Your task to perform on an android device: open app "Pluto TV - Live TV and Movies" (install if not already installed) and go to login screen Image 0: 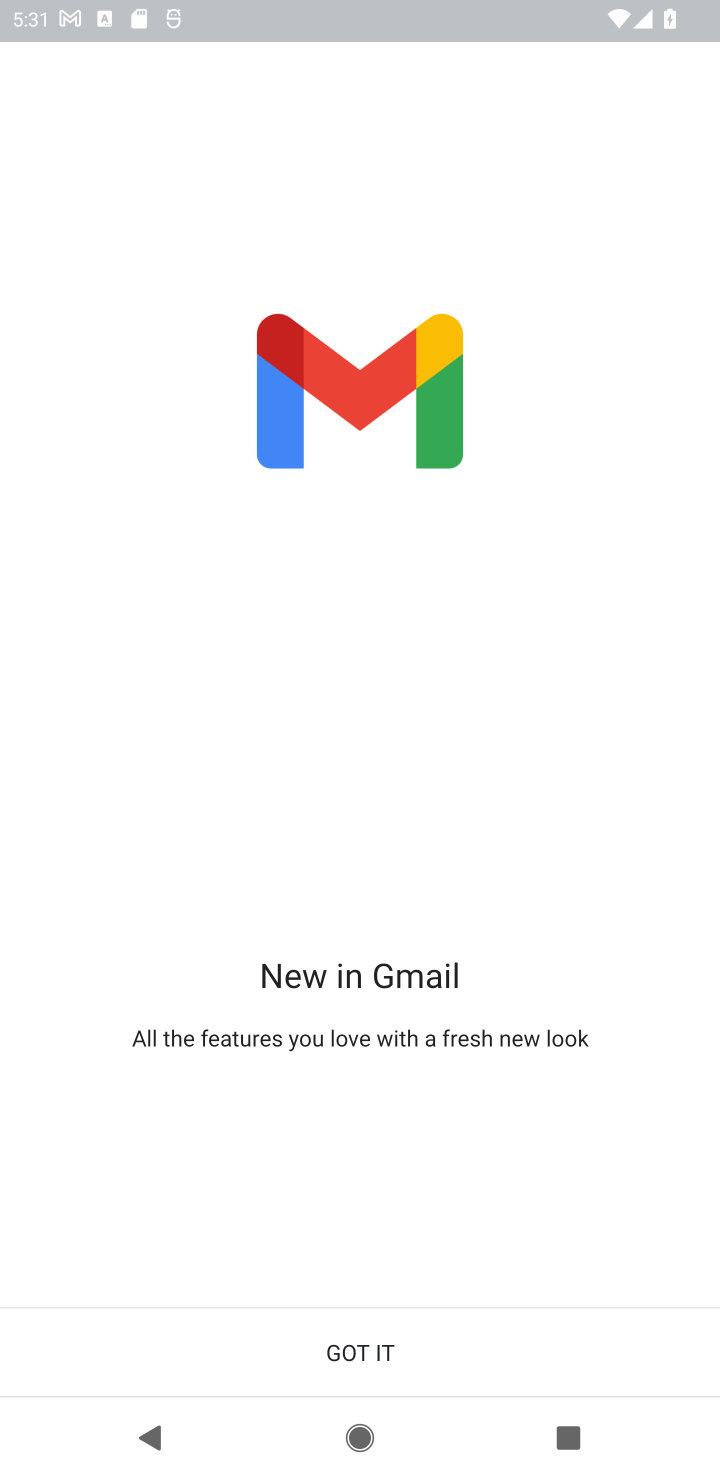
Step 0: press home button
Your task to perform on an android device: open app "Pluto TV - Live TV and Movies" (install if not already installed) and go to login screen Image 1: 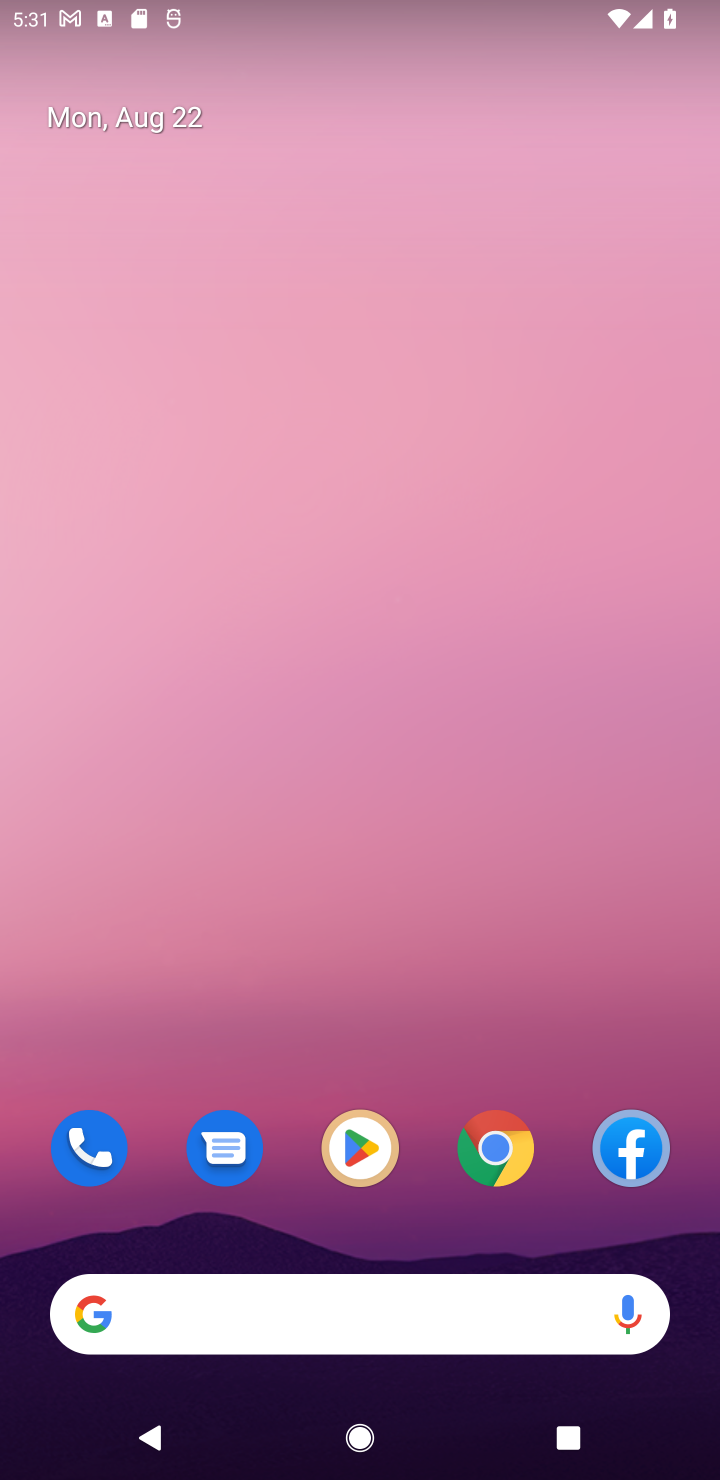
Step 1: click (356, 1154)
Your task to perform on an android device: open app "Pluto TV - Live TV and Movies" (install if not already installed) and go to login screen Image 2: 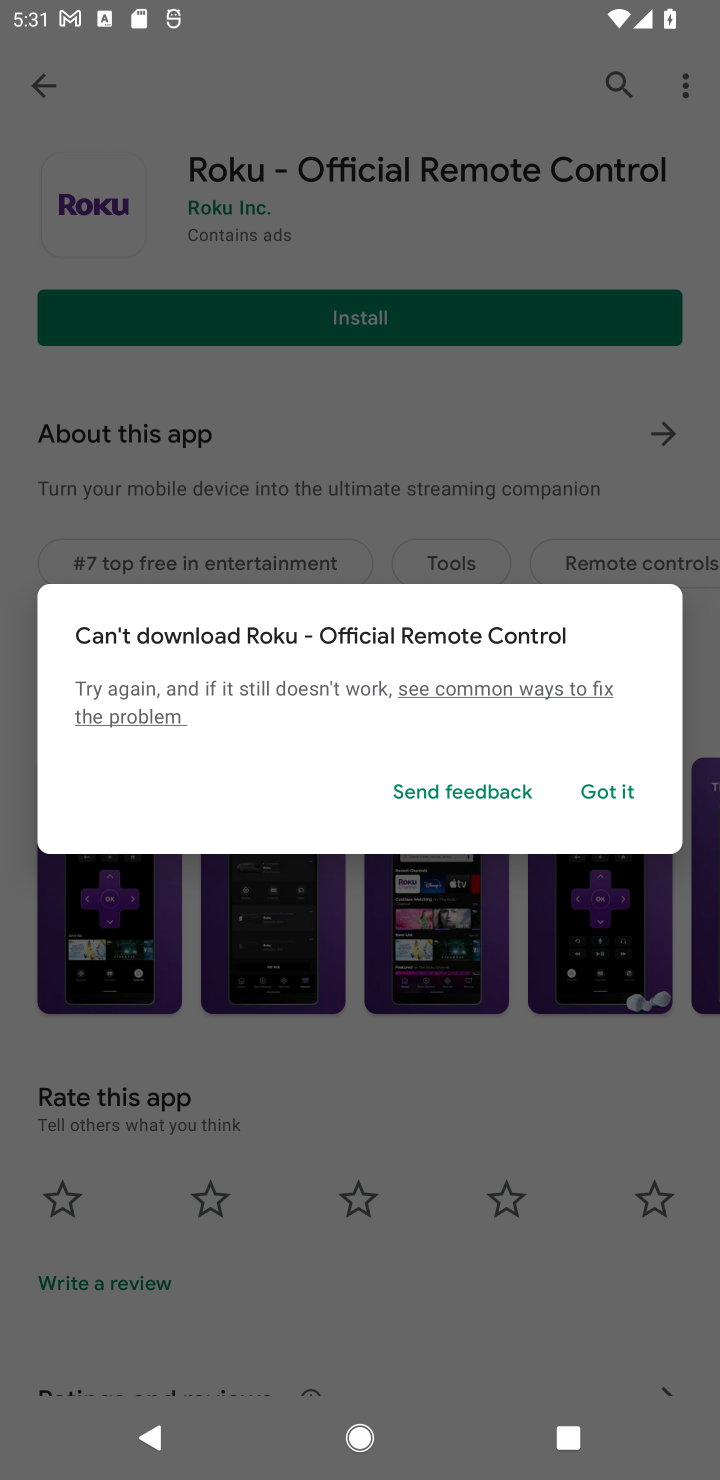
Step 2: click (605, 785)
Your task to perform on an android device: open app "Pluto TV - Live TV and Movies" (install if not already installed) and go to login screen Image 3: 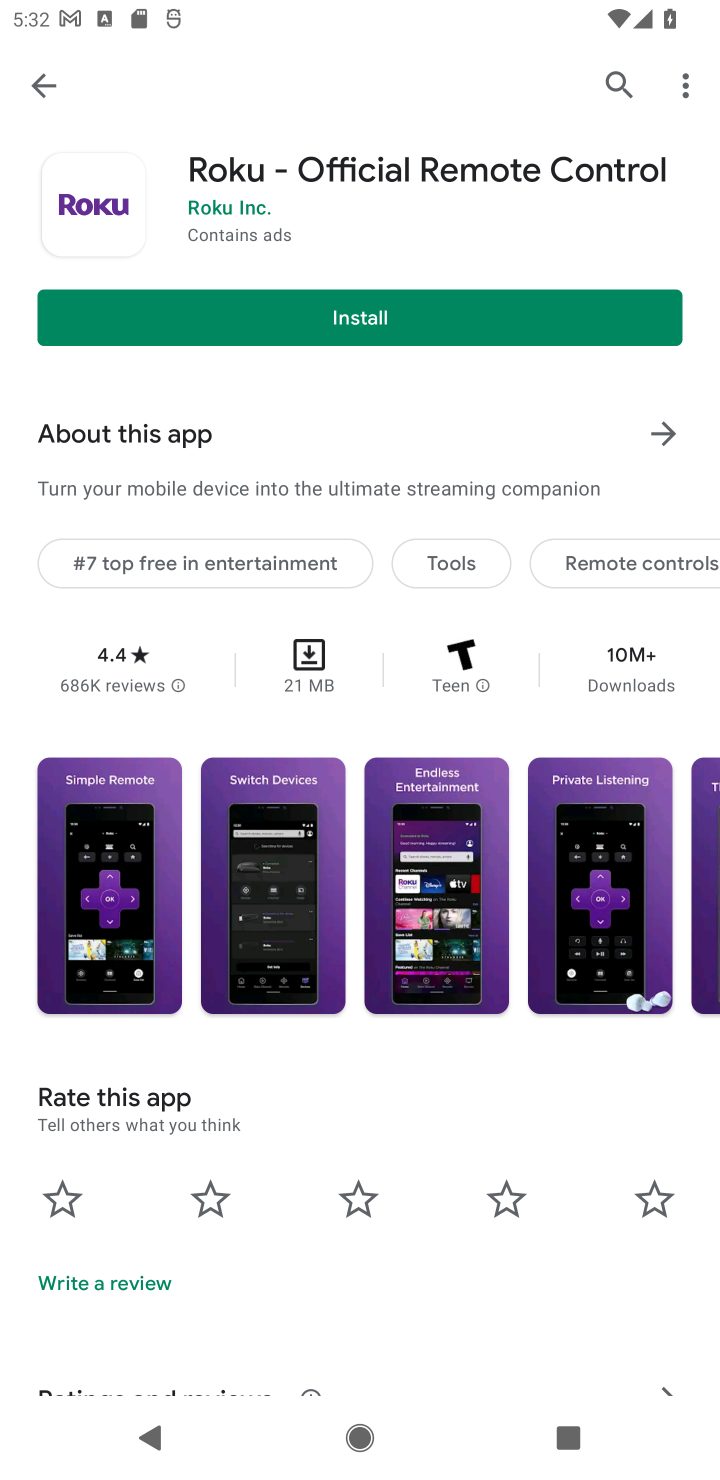
Step 3: click (613, 81)
Your task to perform on an android device: open app "Pluto TV - Live TV and Movies" (install if not already installed) and go to login screen Image 4: 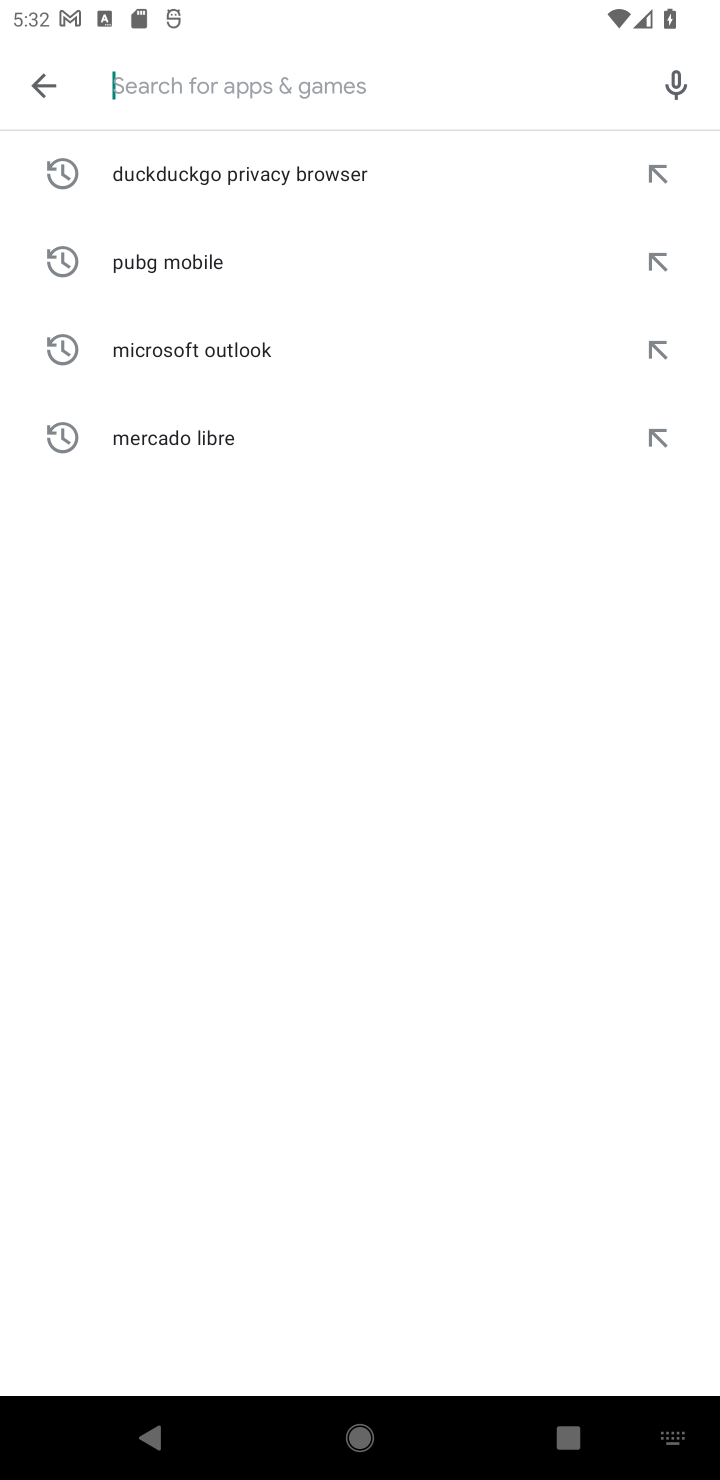
Step 4: type "Pluto TV - Live TV and Movies"
Your task to perform on an android device: open app "Pluto TV - Live TV and Movies" (install if not already installed) and go to login screen Image 5: 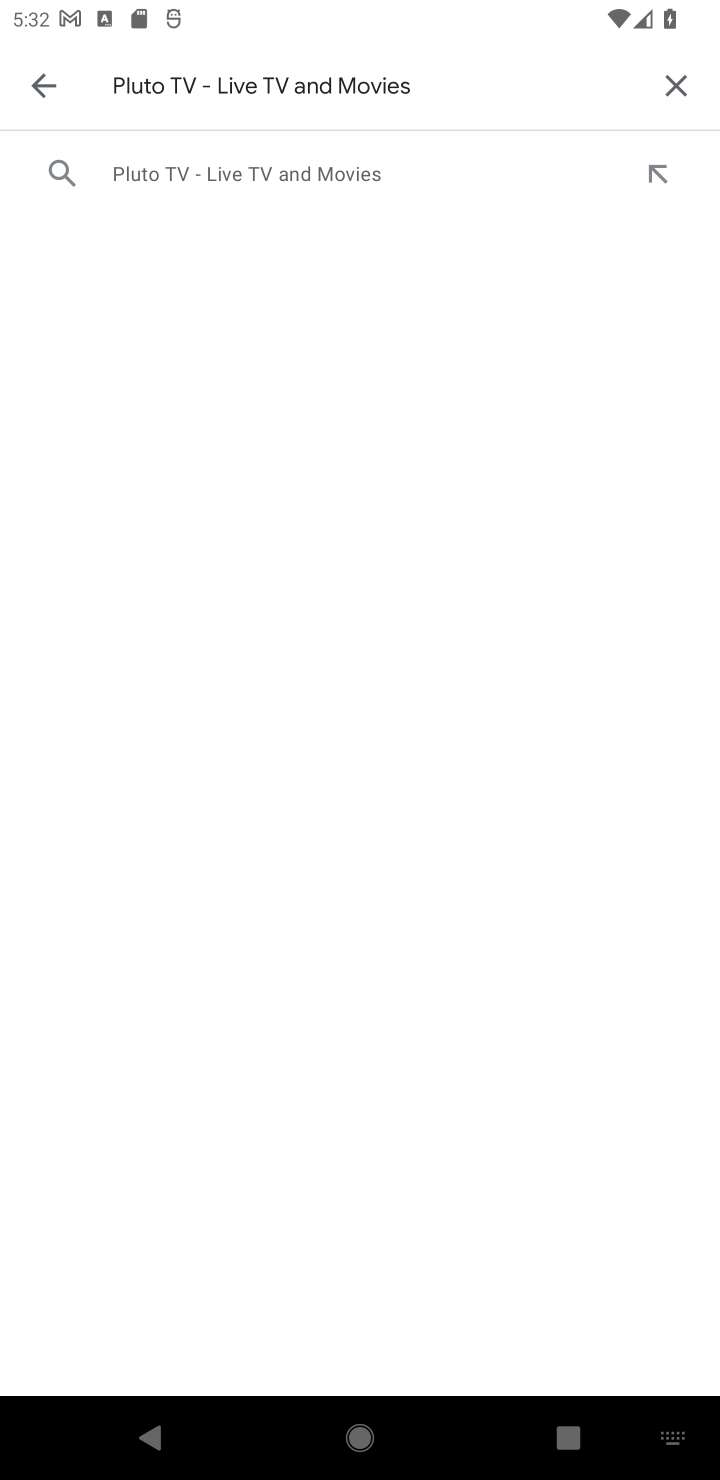
Step 5: click (191, 175)
Your task to perform on an android device: open app "Pluto TV - Live TV and Movies" (install if not already installed) and go to login screen Image 6: 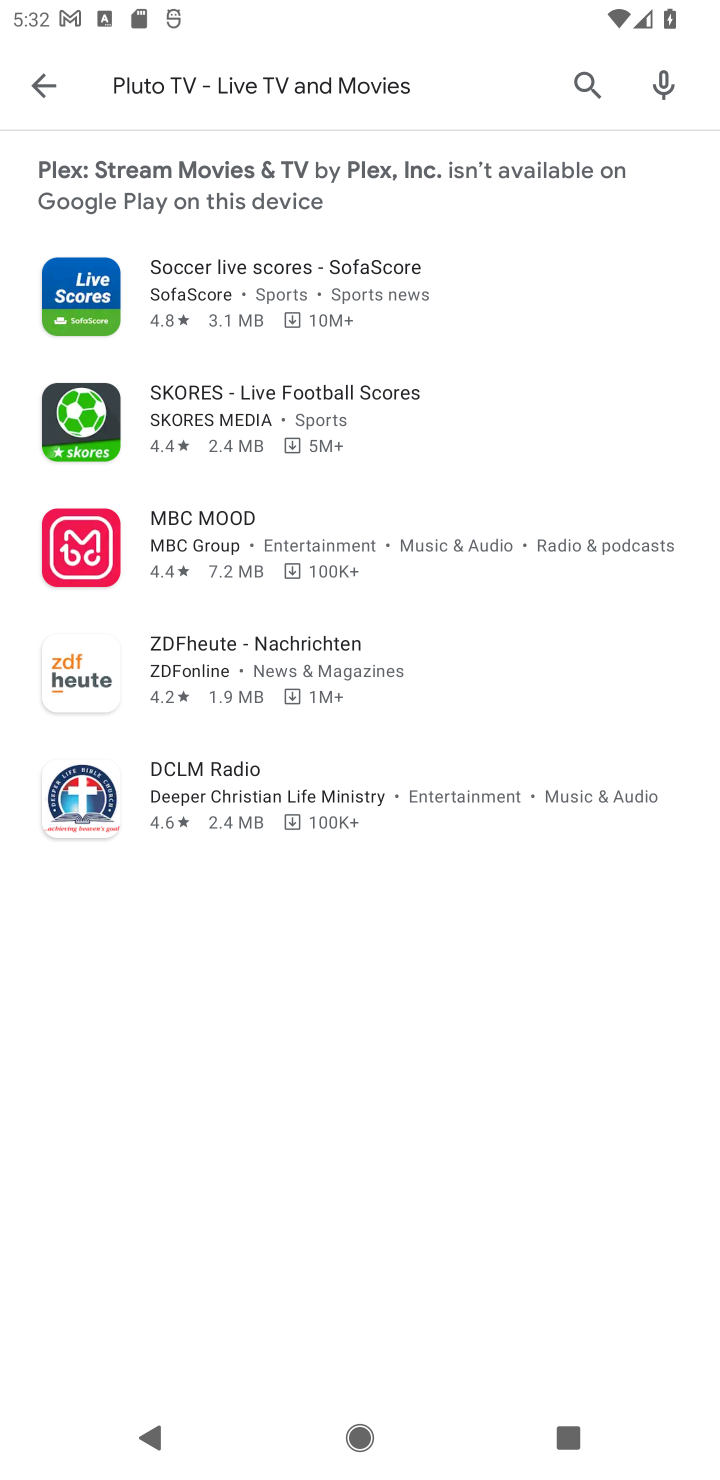
Step 6: task complete